Your task to perform on an android device: turn on the 12-hour format for clock Image 0: 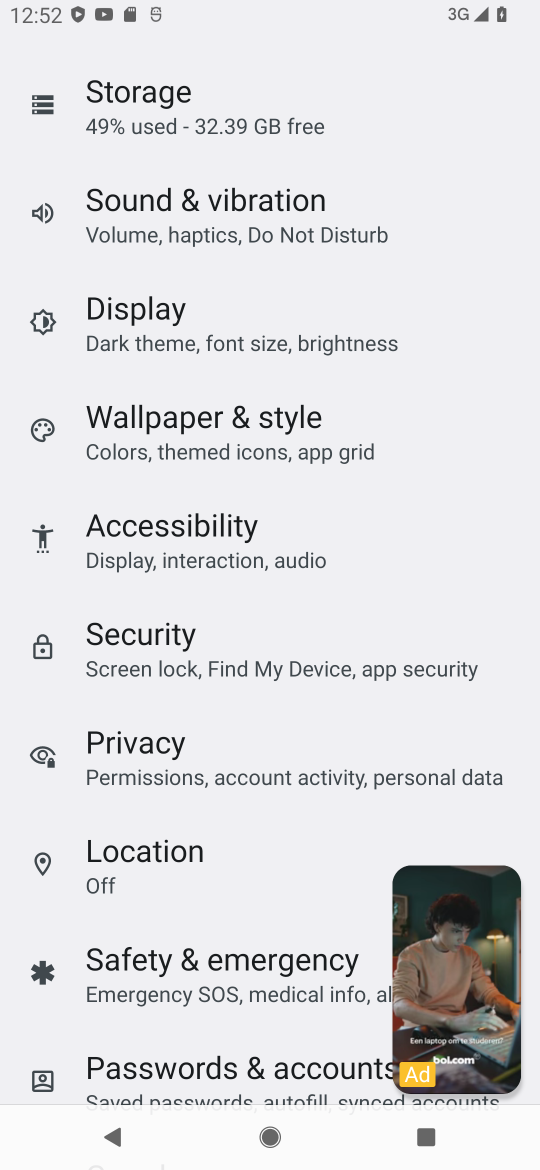
Step 0: press home button
Your task to perform on an android device: turn on the 12-hour format for clock Image 1: 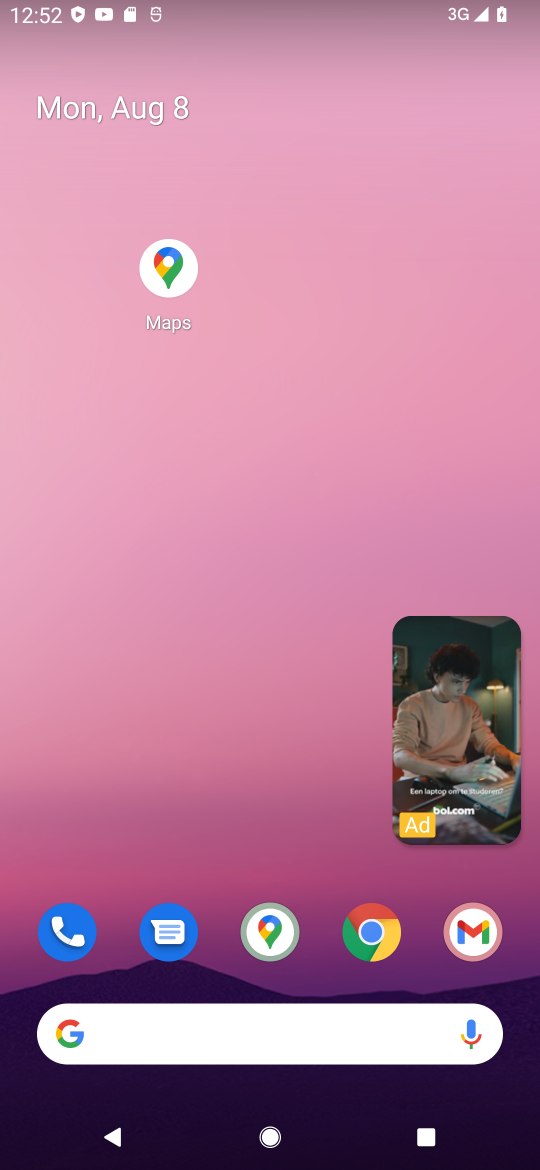
Step 1: drag from (287, 862) to (374, 37)
Your task to perform on an android device: turn on the 12-hour format for clock Image 2: 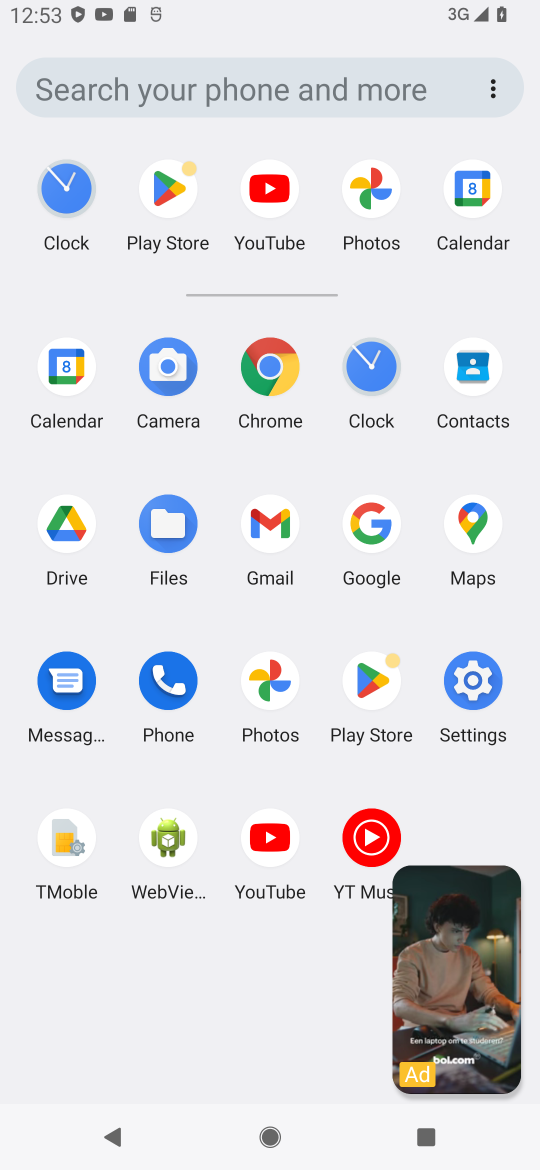
Step 2: click (69, 188)
Your task to perform on an android device: turn on the 12-hour format for clock Image 3: 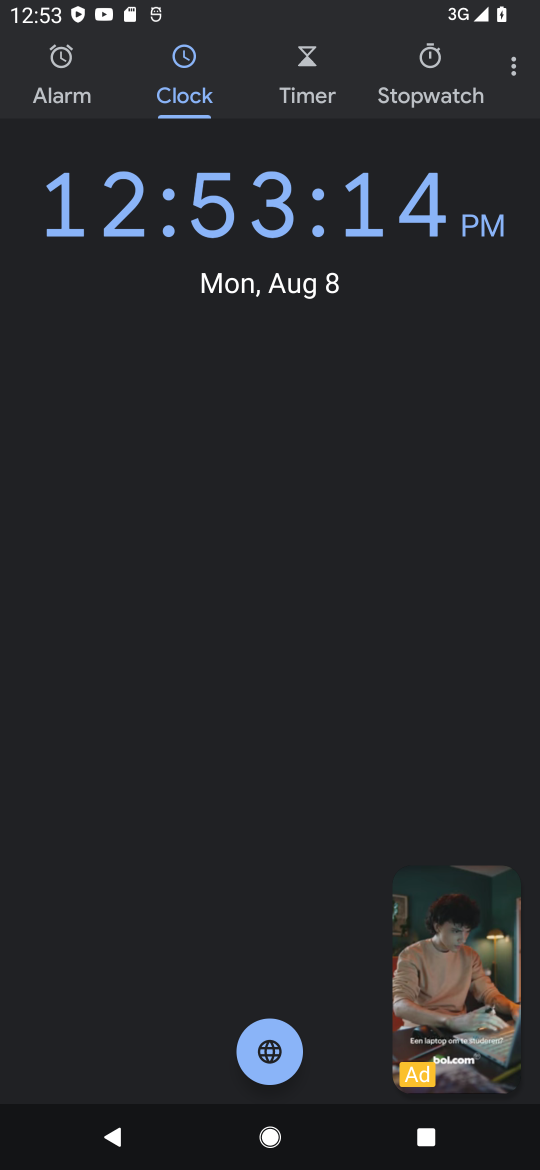
Step 3: click (531, 74)
Your task to perform on an android device: turn on the 12-hour format for clock Image 4: 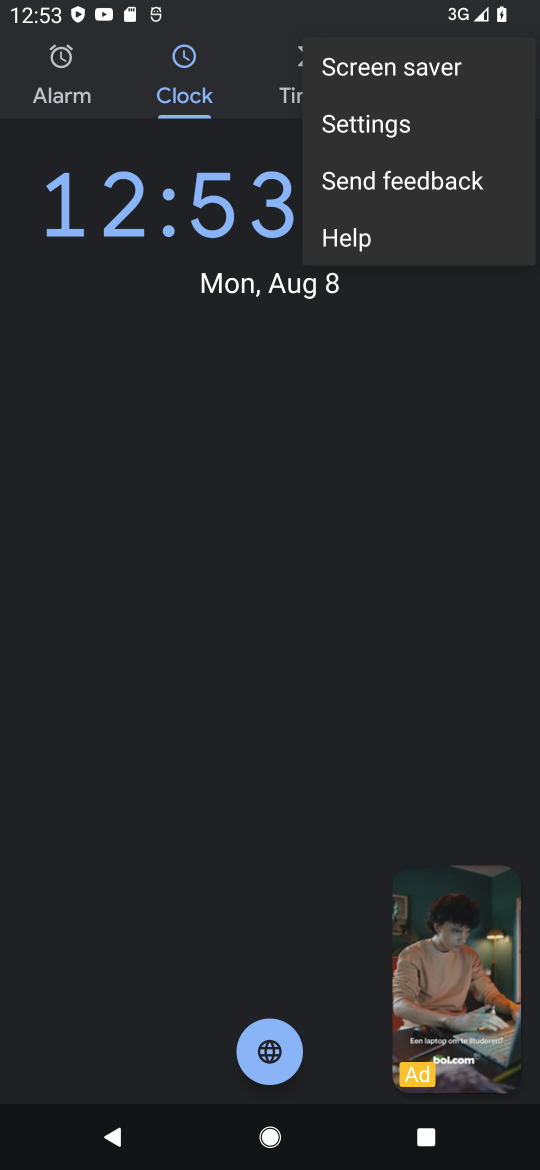
Step 4: click (389, 140)
Your task to perform on an android device: turn on the 12-hour format for clock Image 5: 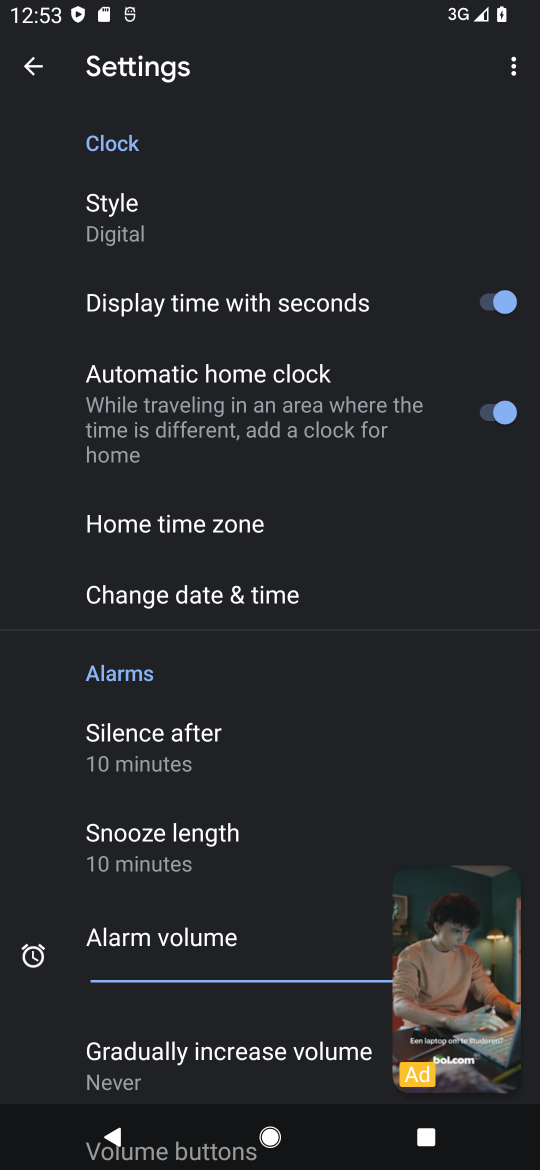
Step 5: task complete